Your task to perform on an android device: make emails show in primary in the gmail app Image 0: 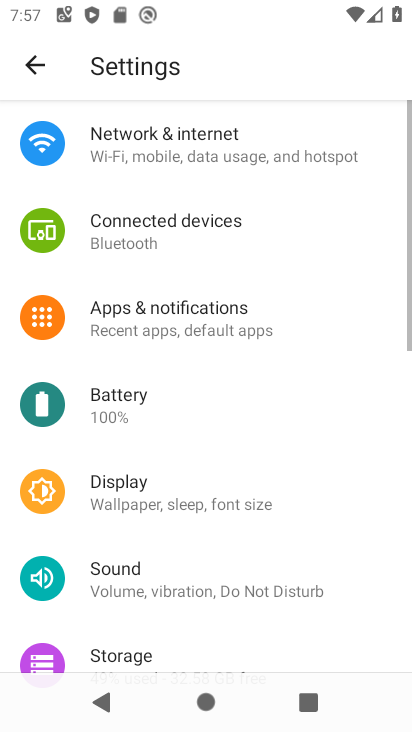
Step 0: press home button
Your task to perform on an android device: make emails show in primary in the gmail app Image 1: 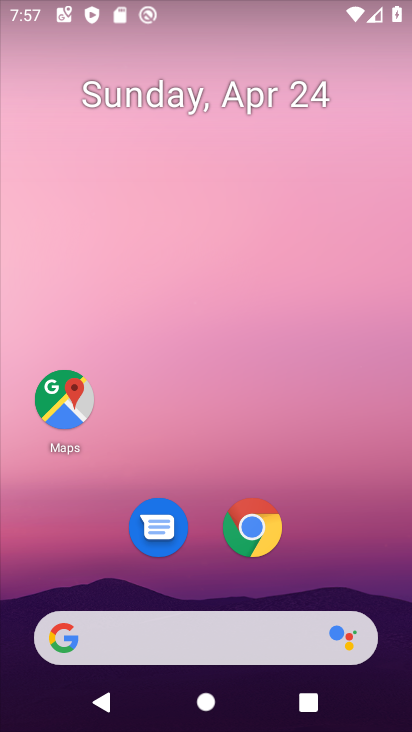
Step 1: drag from (380, 527) to (283, 47)
Your task to perform on an android device: make emails show in primary in the gmail app Image 2: 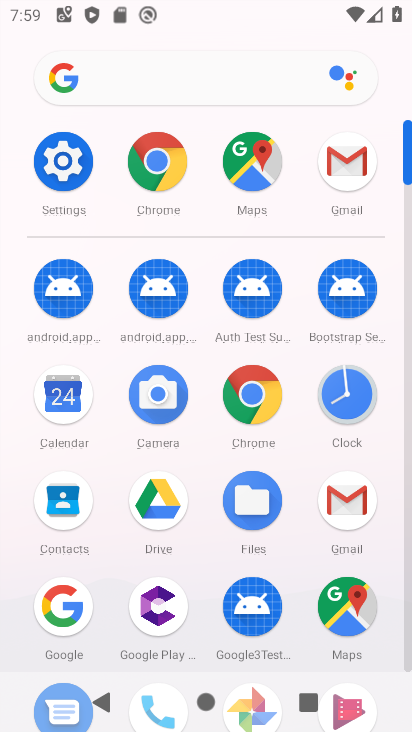
Step 2: click (329, 517)
Your task to perform on an android device: make emails show in primary in the gmail app Image 3: 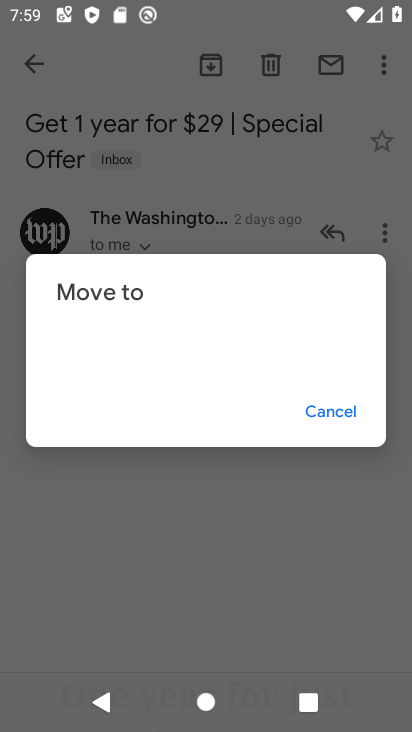
Step 3: click (361, 412)
Your task to perform on an android device: make emails show in primary in the gmail app Image 4: 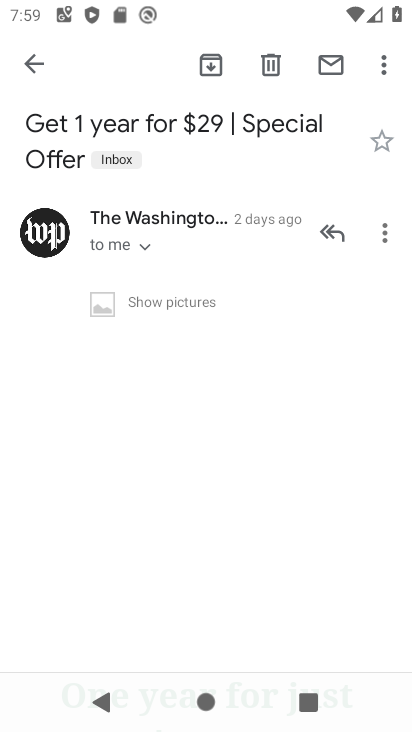
Step 4: click (398, 43)
Your task to perform on an android device: make emails show in primary in the gmail app Image 5: 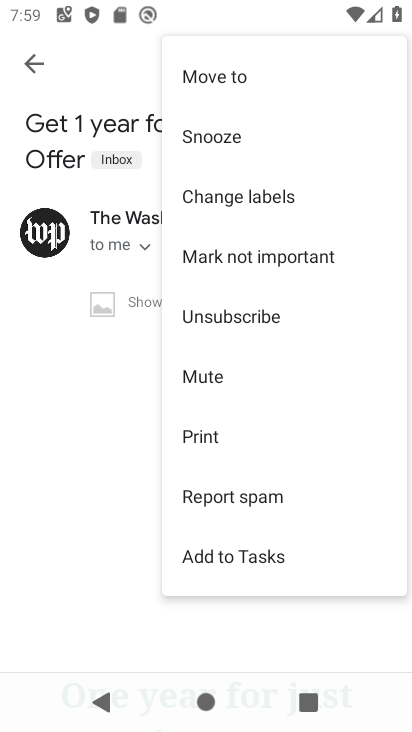
Step 5: click (272, 81)
Your task to perform on an android device: make emails show in primary in the gmail app Image 6: 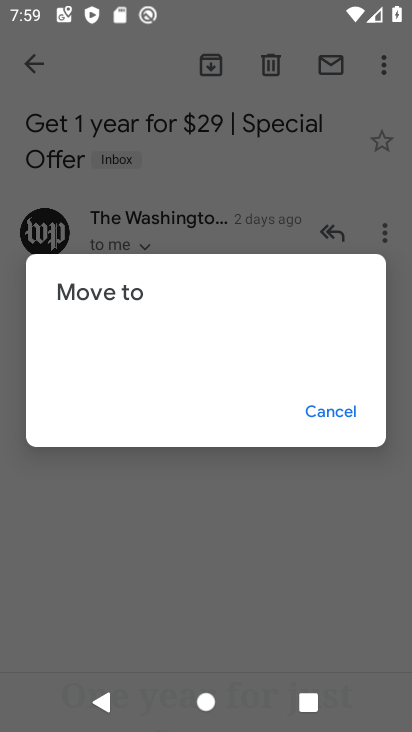
Step 6: task complete